Your task to perform on an android device: turn off improve location accuracy Image 0: 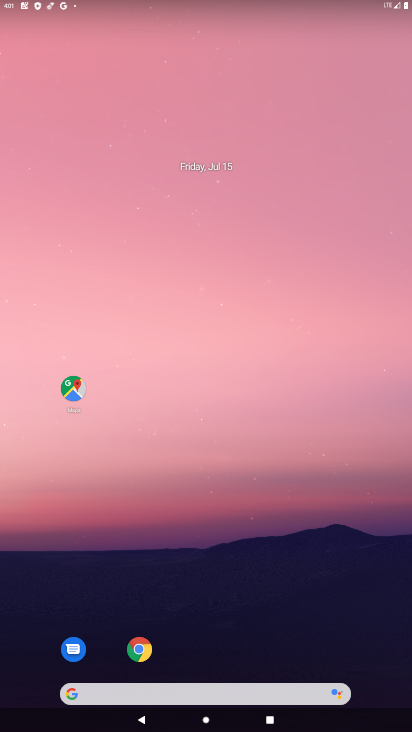
Step 0: drag from (219, 615) to (220, 247)
Your task to perform on an android device: turn off improve location accuracy Image 1: 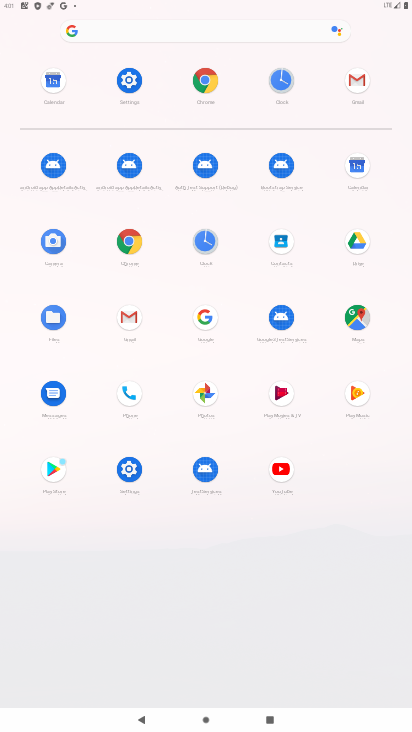
Step 1: click (124, 90)
Your task to perform on an android device: turn off improve location accuracy Image 2: 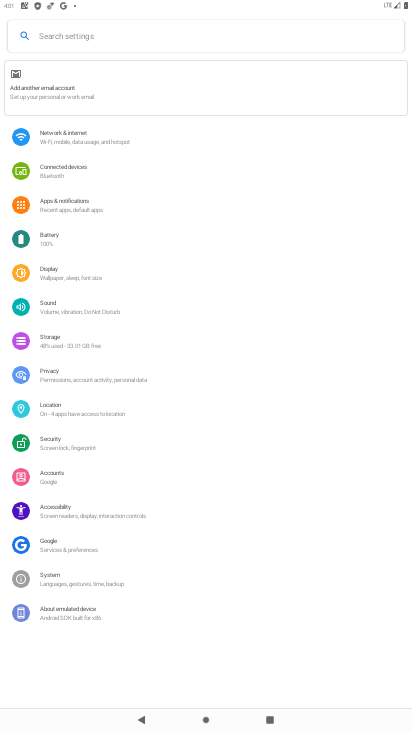
Step 2: click (68, 413)
Your task to perform on an android device: turn off improve location accuracy Image 3: 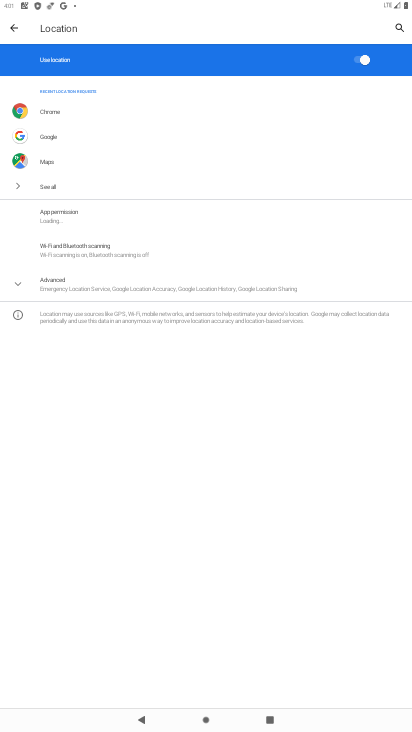
Step 3: click (101, 294)
Your task to perform on an android device: turn off improve location accuracy Image 4: 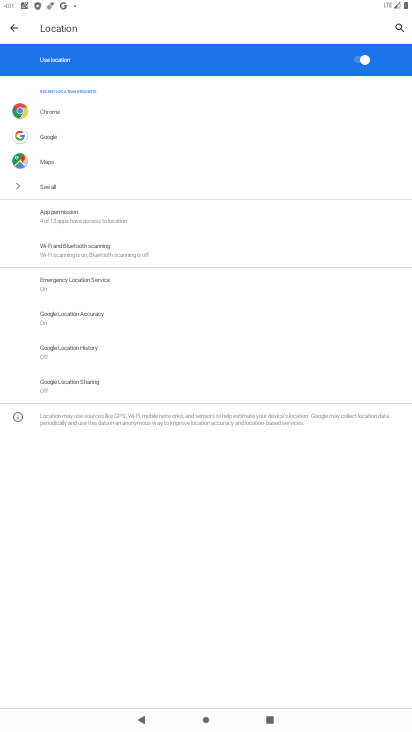
Step 4: click (89, 318)
Your task to perform on an android device: turn off improve location accuracy Image 5: 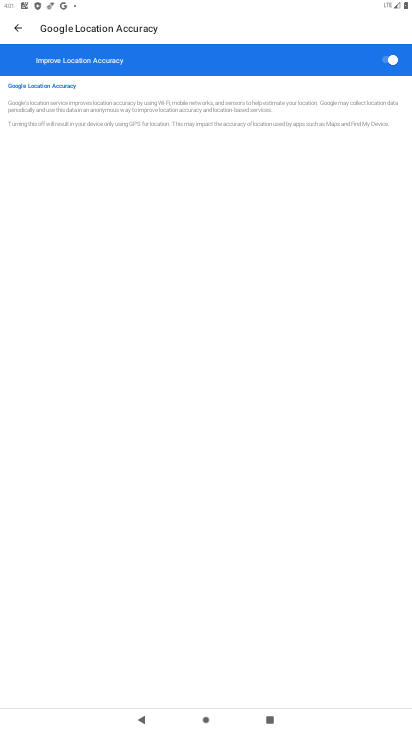
Step 5: click (383, 60)
Your task to perform on an android device: turn off improve location accuracy Image 6: 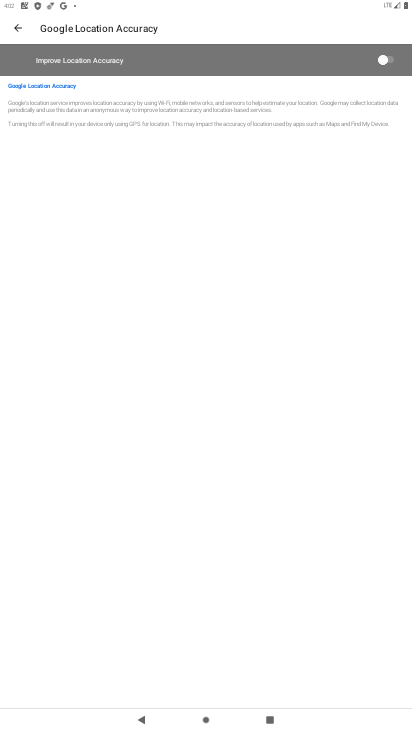
Step 6: task complete